Your task to perform on an android device: turn notification dots off Image 0: 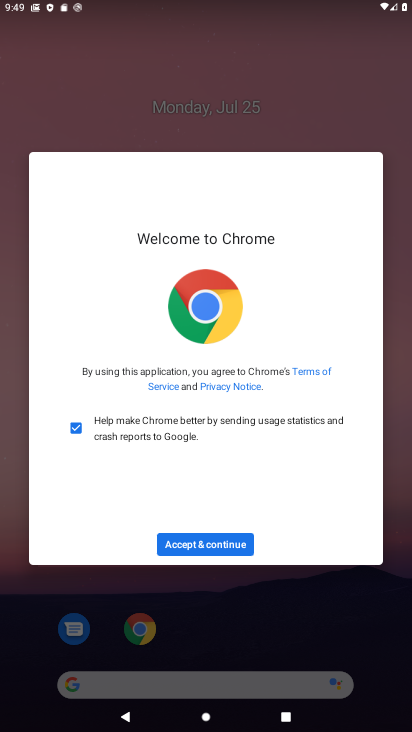
Step 0: press home button
Your task to perform on an android device: turn notification dots off Image 1: 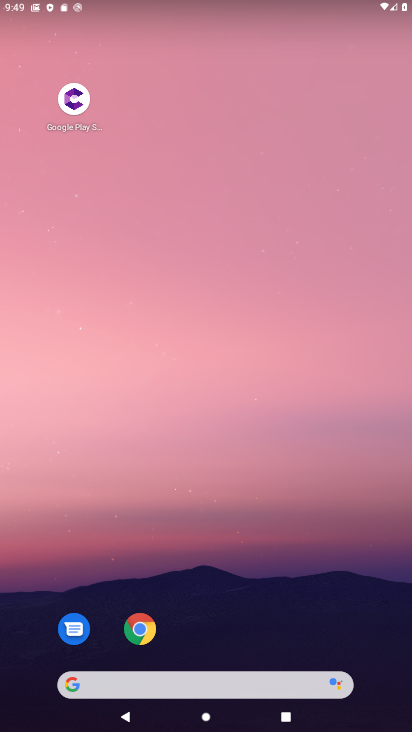
Step 1: drag from (286, 639) to (280, 37)
Your task to perform on an android device: turn notification dots off Image 2: 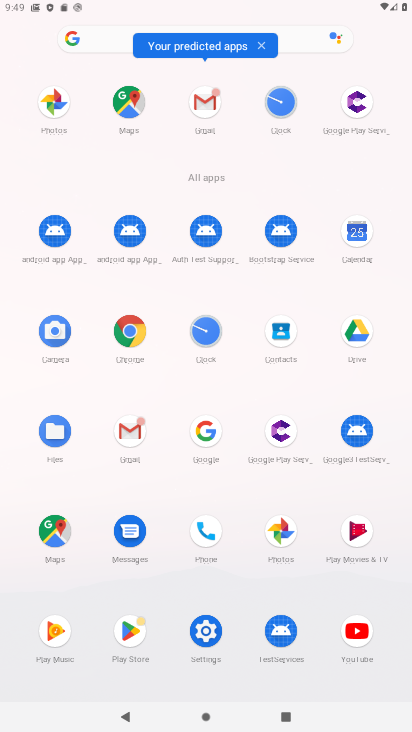
Step 2: click (204, 632)
Your task to perform on an android device: turn notification dots off Image 3: 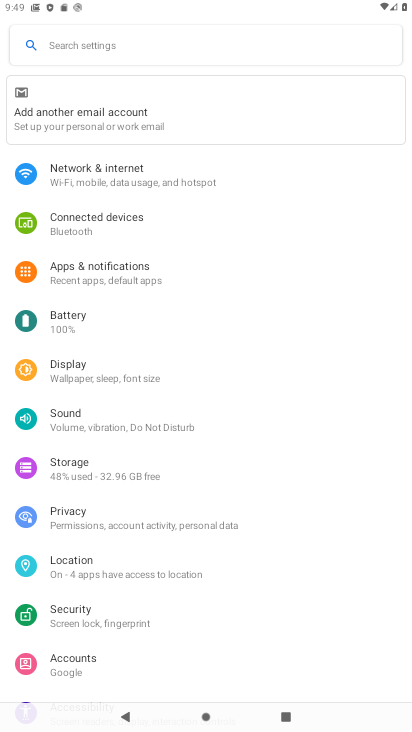
Step 3: click (103, 275)
Your task to perform on an android device: turn notification dots off Image 4: 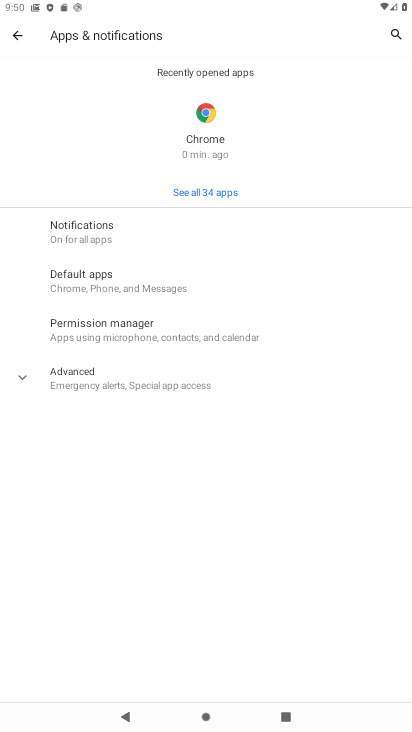
Step 4: click (88, 231)
Your task to perform on an android device: turn notification dots off Image 5: 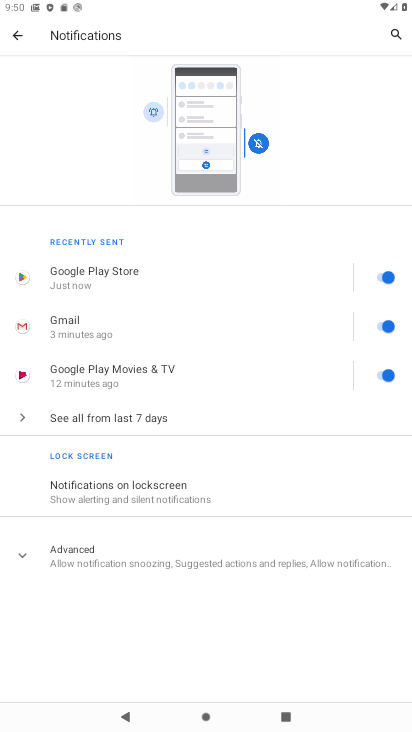
Step 5: click (20, 546)
Your task to perform on an android device: turn notification dots off Image 6: 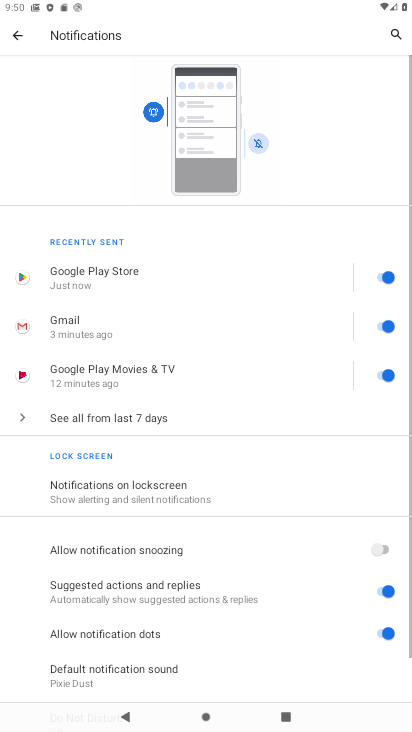
Step 6: drag from (232, 577) to (241, 327)
Your task to perform on an android device: turn notification dots off Image 7: 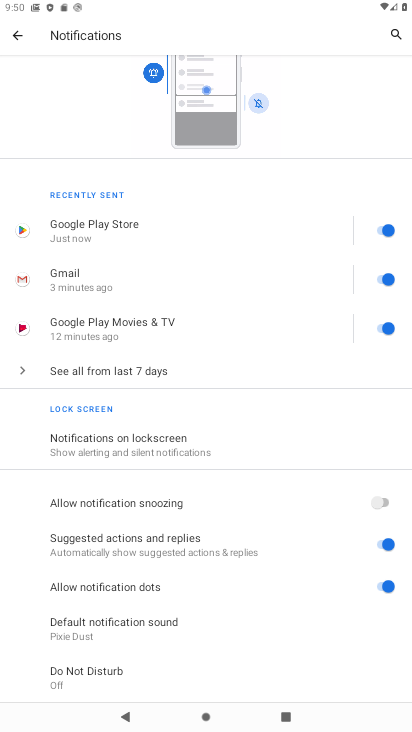
Step 7: click (392, 579)
Your task to perform on an android device: turn notification dots off Image 8: 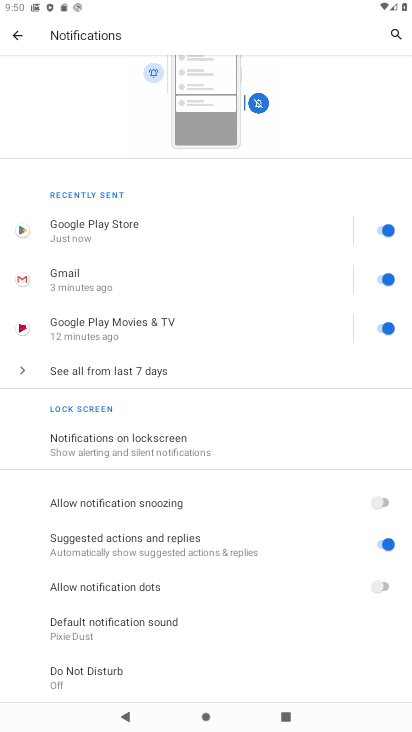
Step 8: task complete